Your task to perform on an android device: turn off location Image 0: 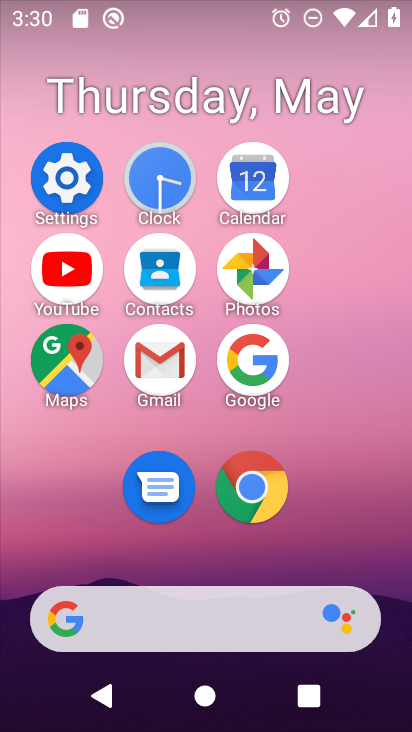
Step 0: click (69, 182)
Your task to perform on an android device: turn off location Image 1: 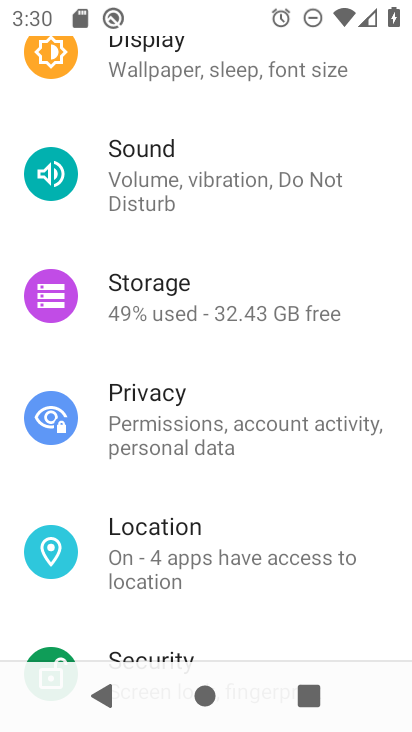
Step 1: click (216, 531)
Your task to perform on an android device: turn off location Image 2: 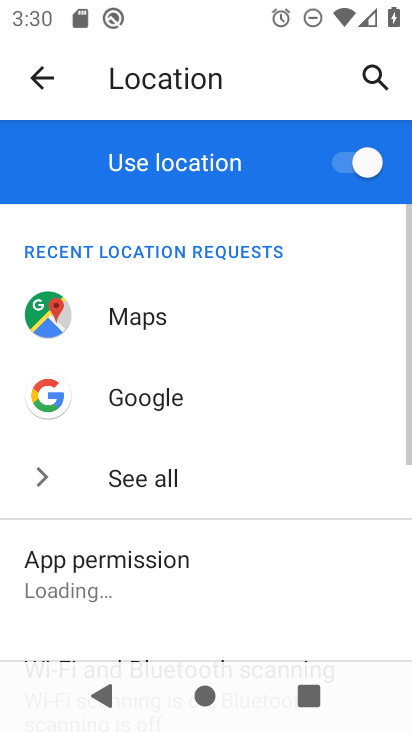
Step 2: task complete